Your task to perform on an android device: change the clock display to digital Image 0: 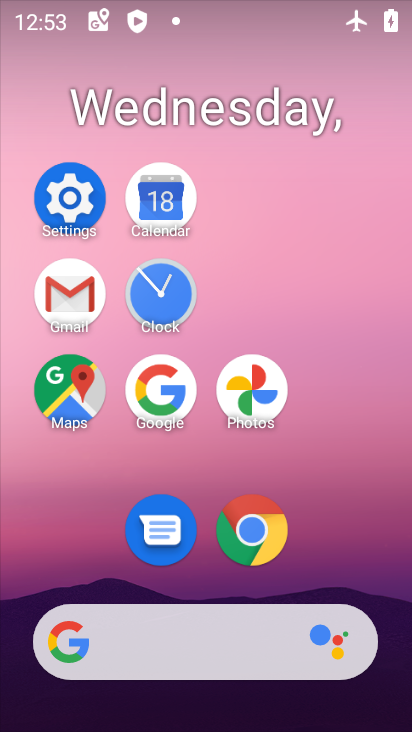
Step 0: click (172, 286)
Your task to perform on an android device: change the clock display to digital Image 1: 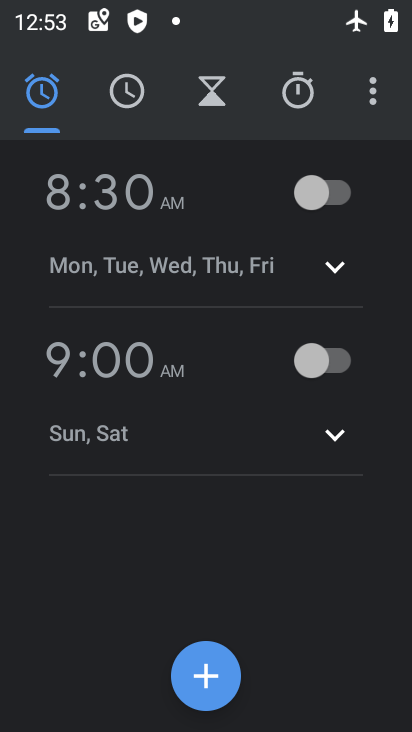
Step 1: click (381, 96)
Your task to perform on an android device: change the clock display to digital Image 2: 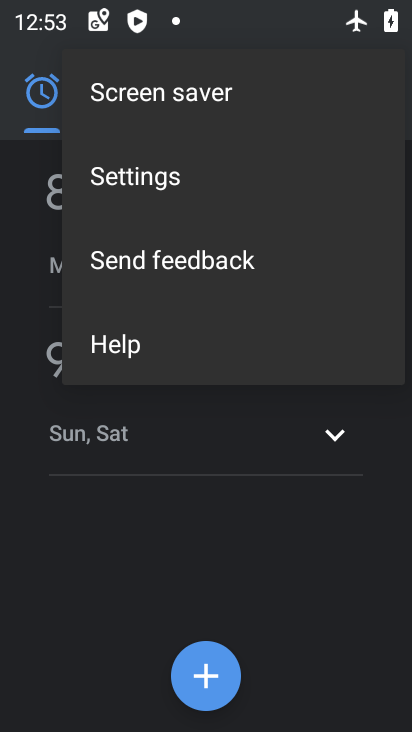
Step 2: click (179, 187)
Your task to perform on an android device: change the clock display to digital Image 3: 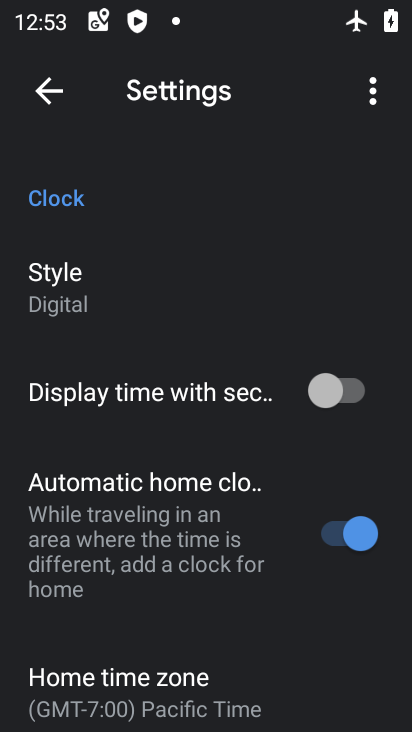
Step 3: task complete